Your task to perform on an android device: What's the weather? Image 0: 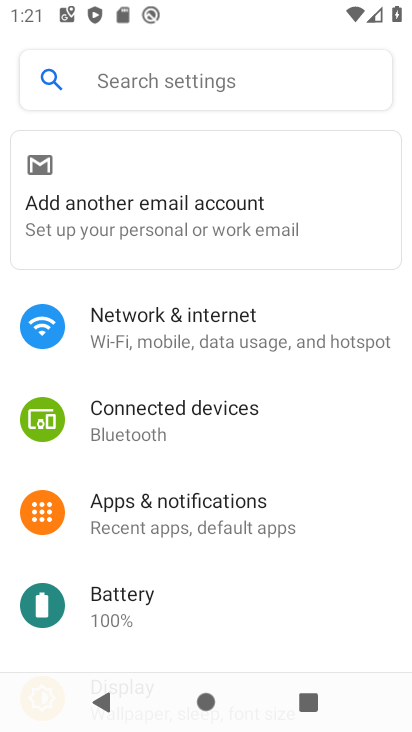
Step 0: press home button
Your task to perform on an android device: What's the weather? Image 1: 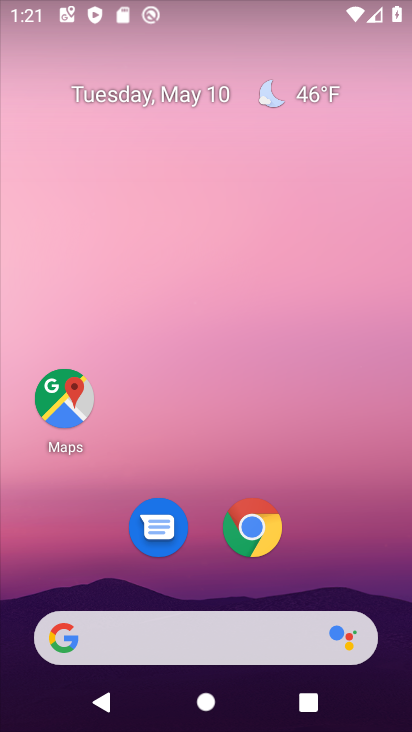
Step 1: click (314, 100)
Your task to perform on an android device: What's the weather? Image 2: 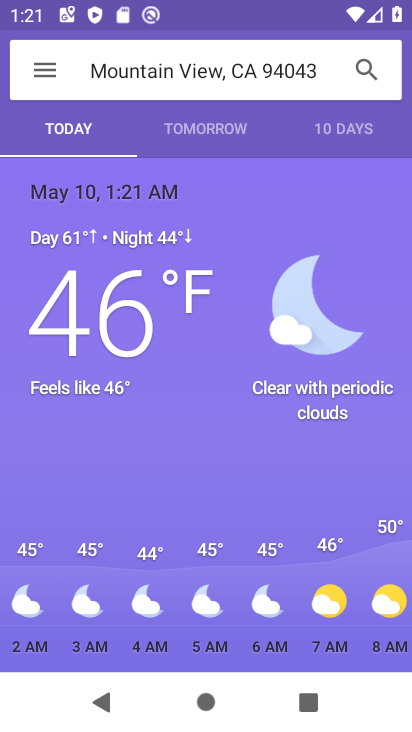
Step 2: task complete